Your task to perform on an android device: Open calendar and show me the first week of next month Image 0: 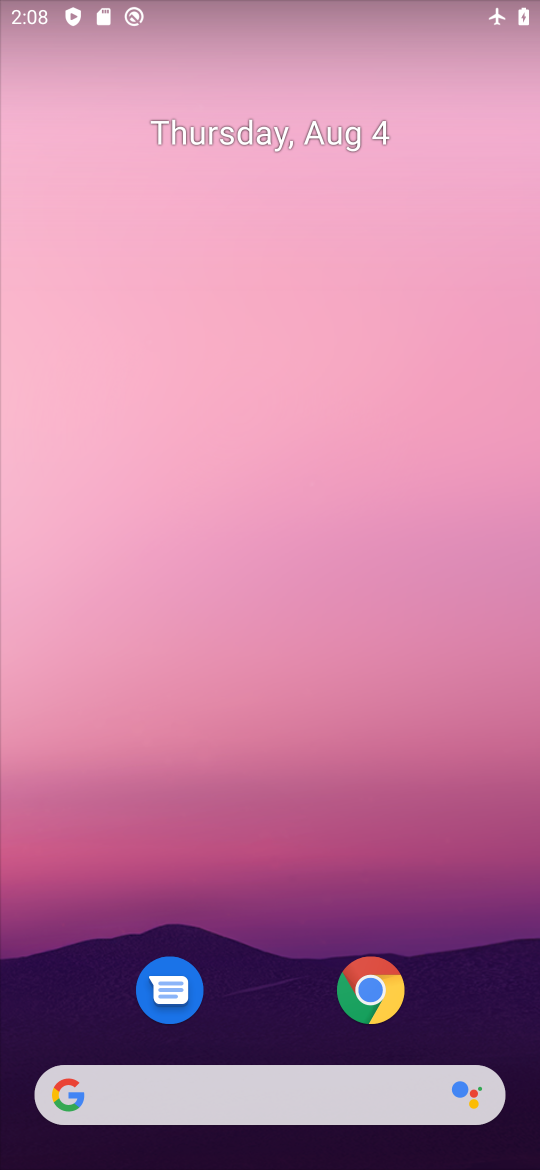
Step 0: drag from (296, 1044) to (229, 266)
Your task to perform on an android device: Open calendar and show me the first week of next month Image 1: 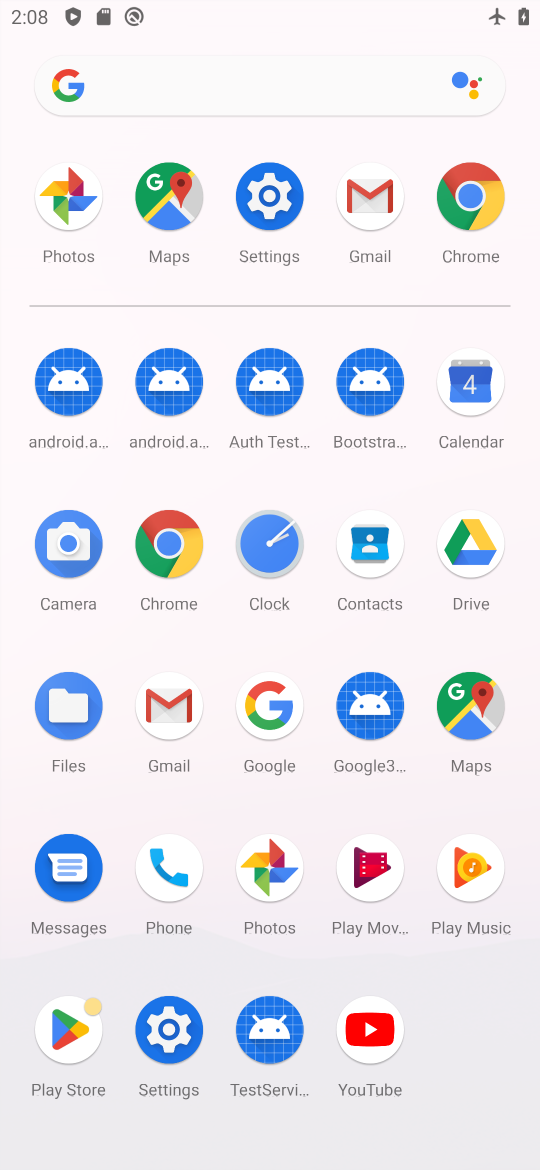
Step 1: click (445, 433)
Your task to perform on an android device: Open calendar and show me the first week of next month Image 2: 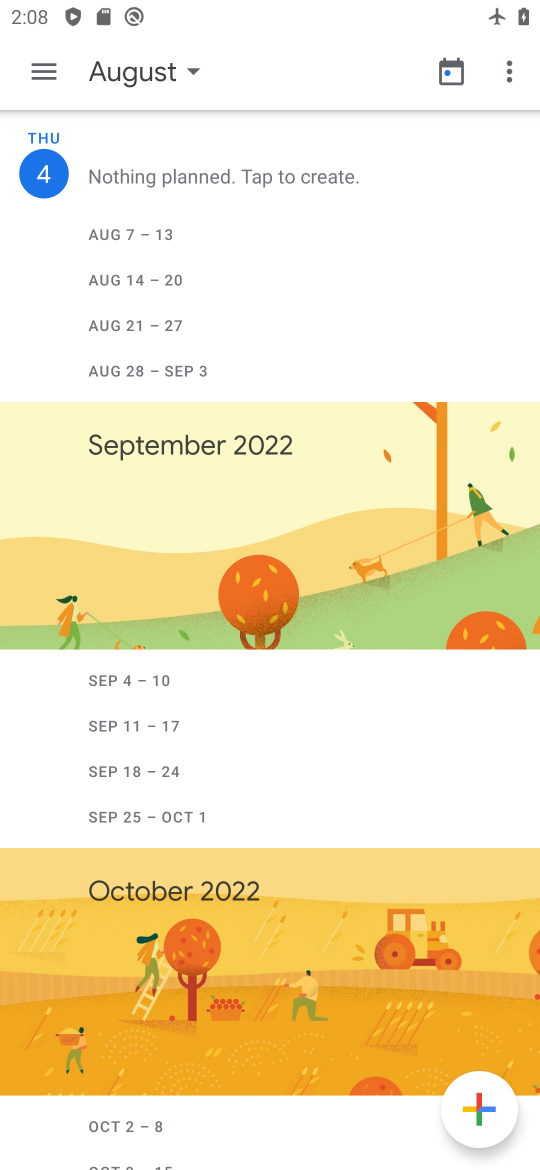
Step 2: task complete